Your task to perform on an android device: Clear the shopping cart on bestbuy. Image 0: 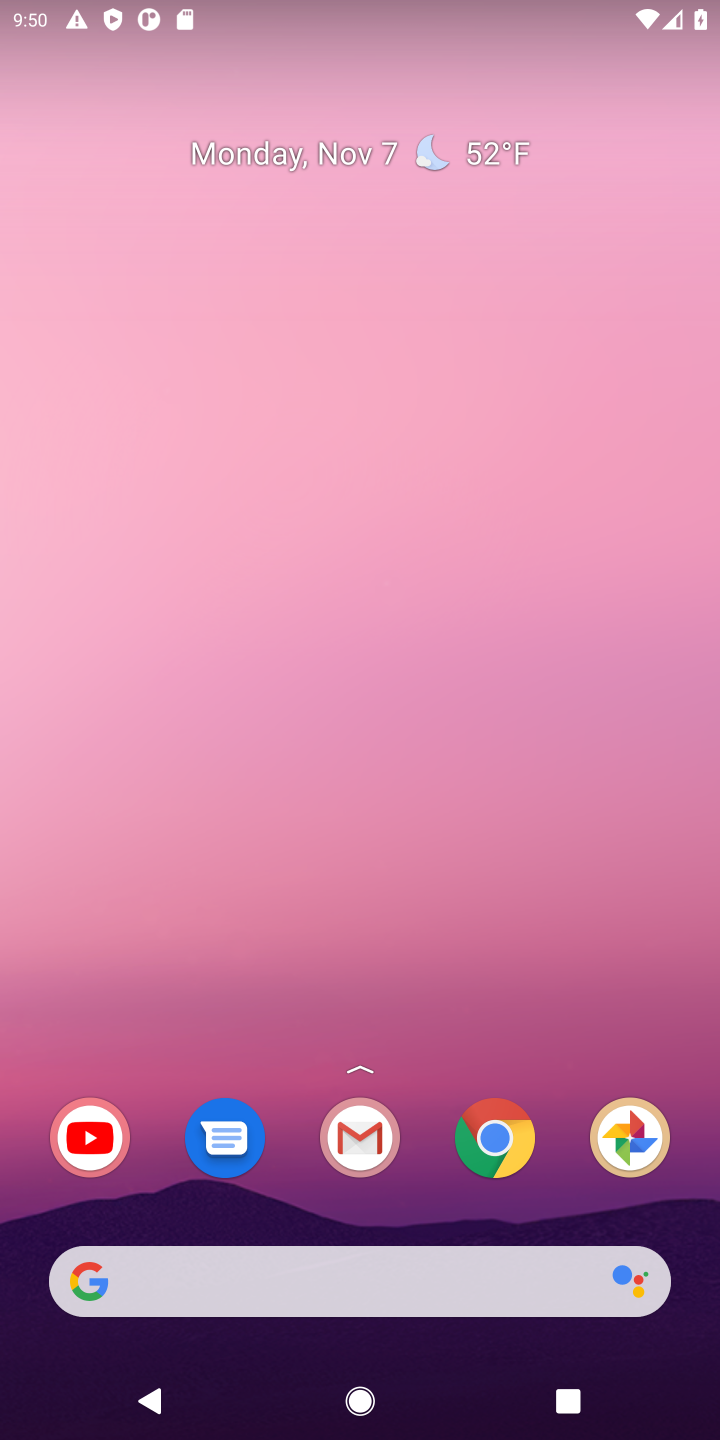
Step 0: click (486, 1139)
Your task to perform on an android device: Clear the shopping cart on bestbuy. Image 1: 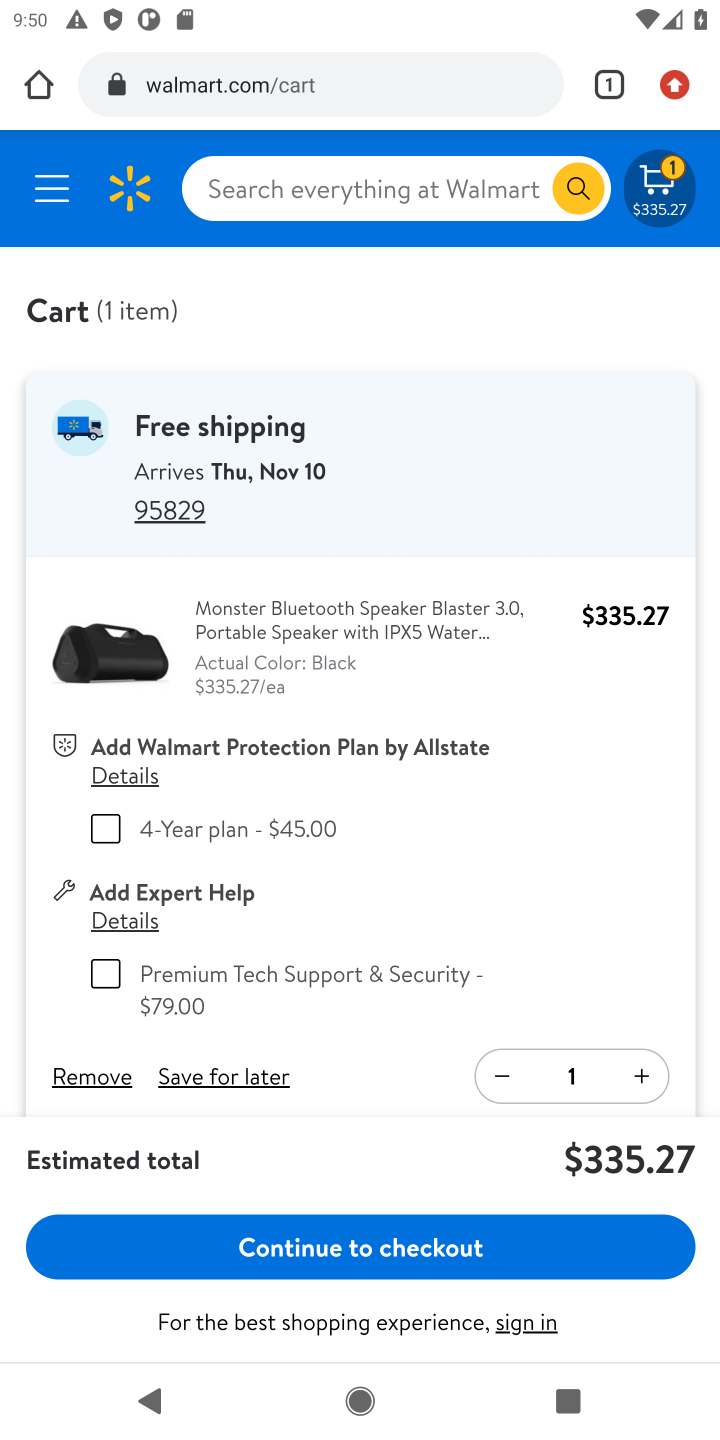
Step 1: click (280, 73)
Your task to perform on an android device: Clear the shopping cart on bestbuy. Image 2: 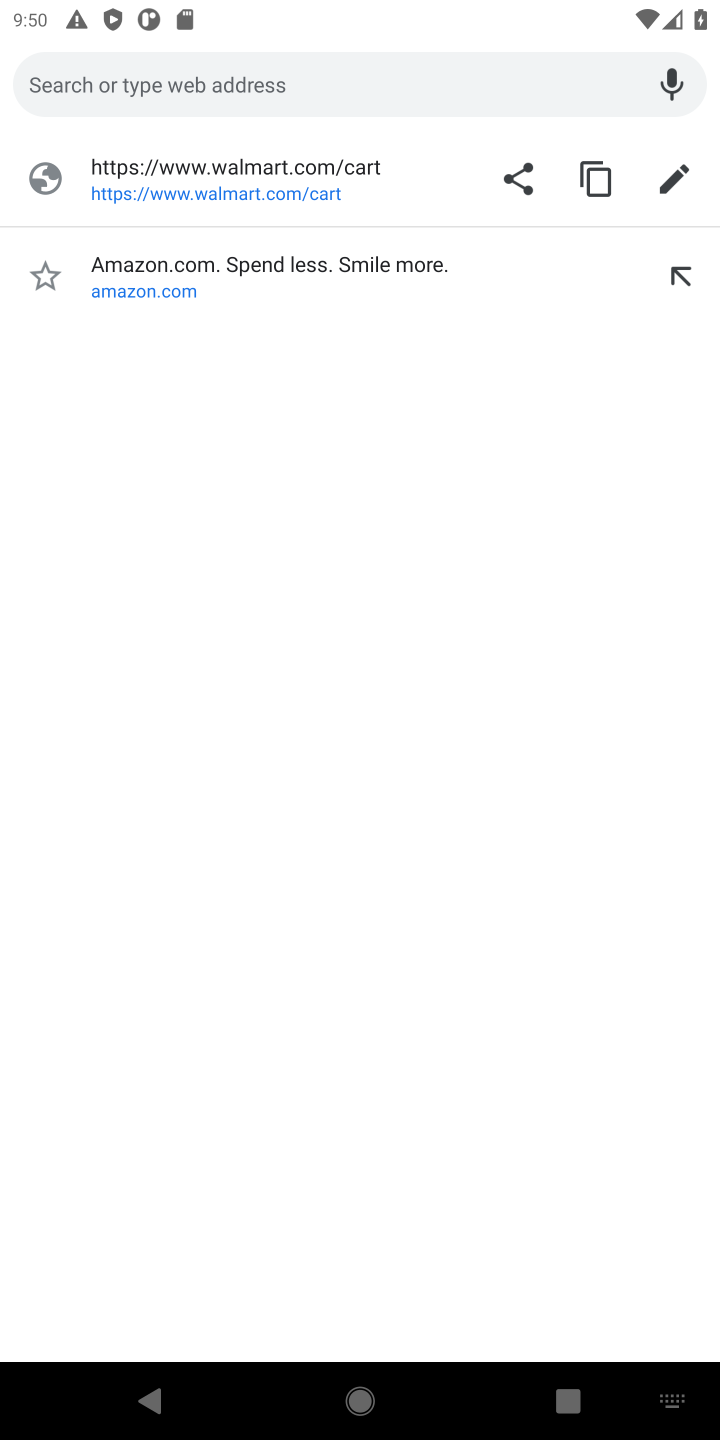
Step 2: type "best buy"
Your task to perform on an android device: Clear the shopping cart on bestbuy. Image 3: 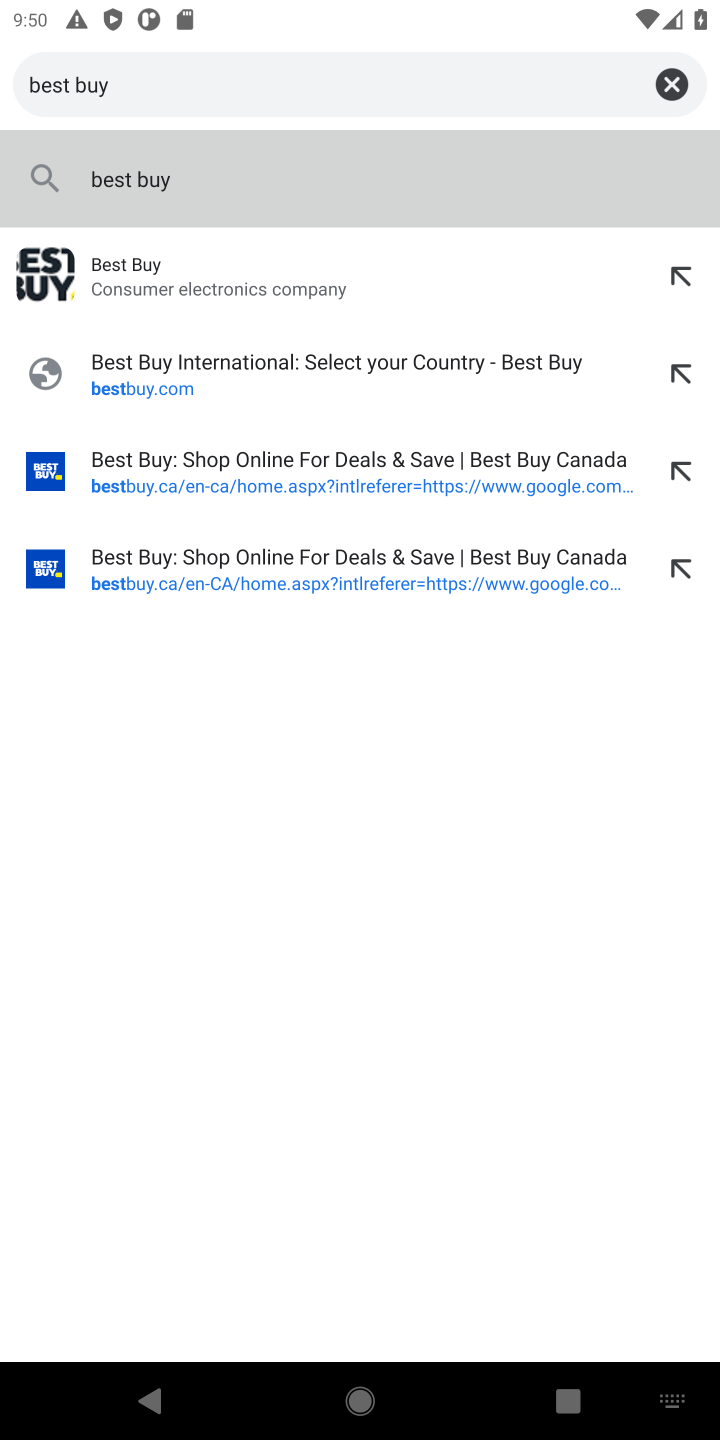
Step 3: type ""
Your task to perform on an android device: Clear the shopping cart on bestbuy. Image 4: 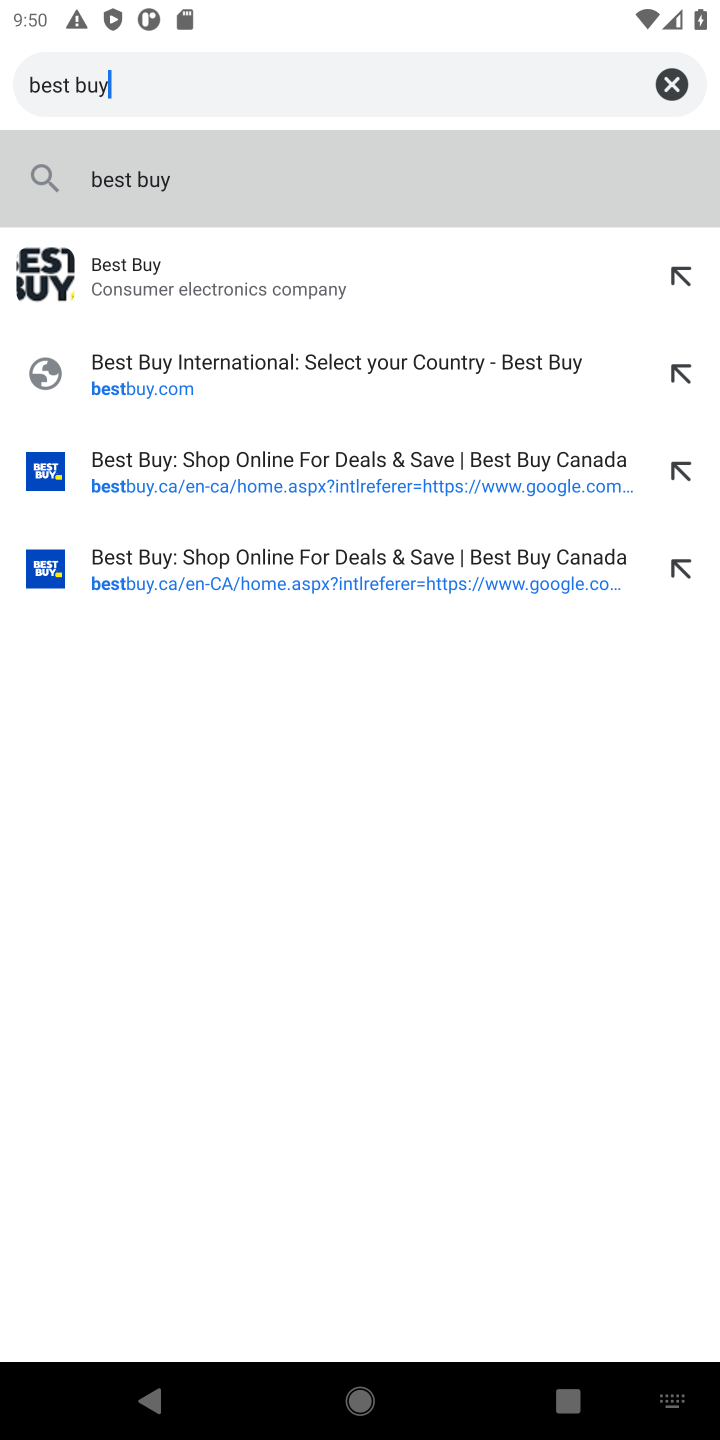
Step 4: click (116, 261)
Your task to perform on an android device: Clear the shopping cart on bestbuy. Image 5: 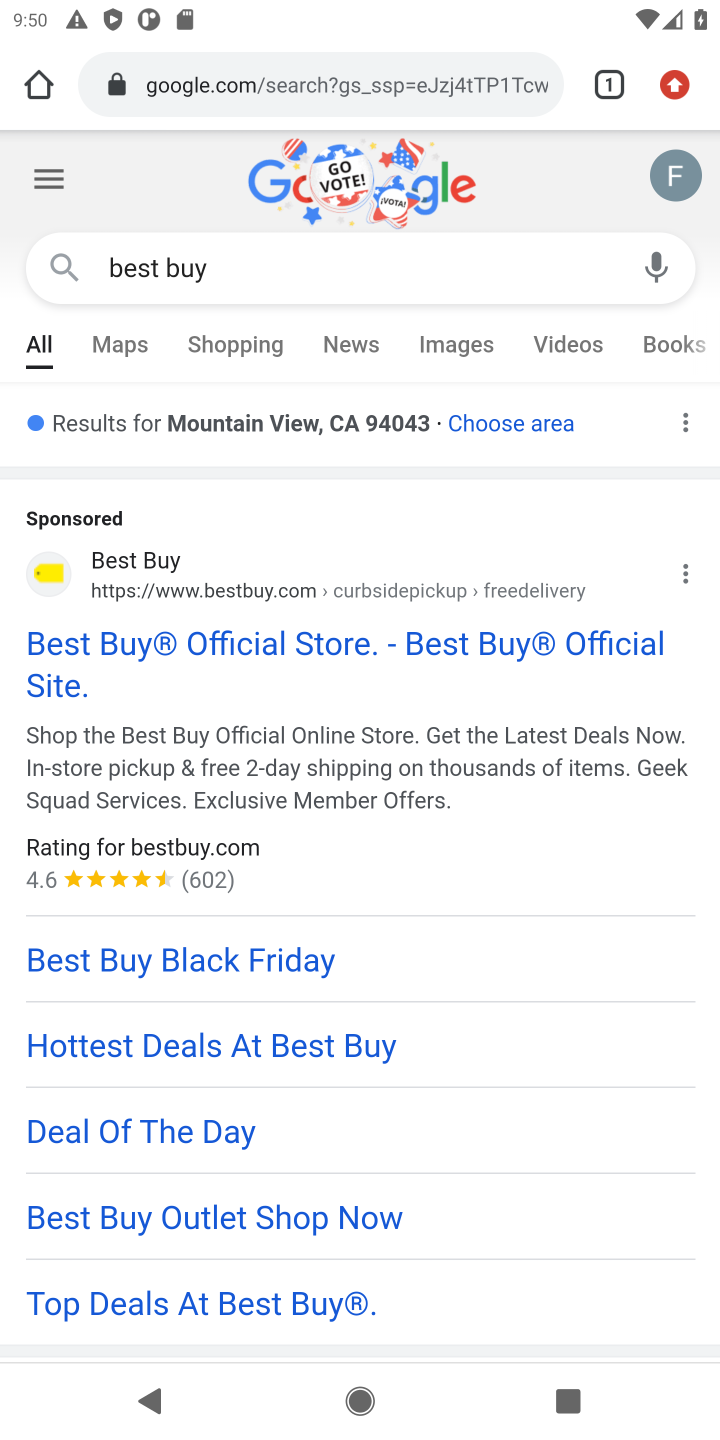
Step 5: click (245, 636)
Your task to perform on an android device: Clear the shopping cart on bestbuy. Image 6: 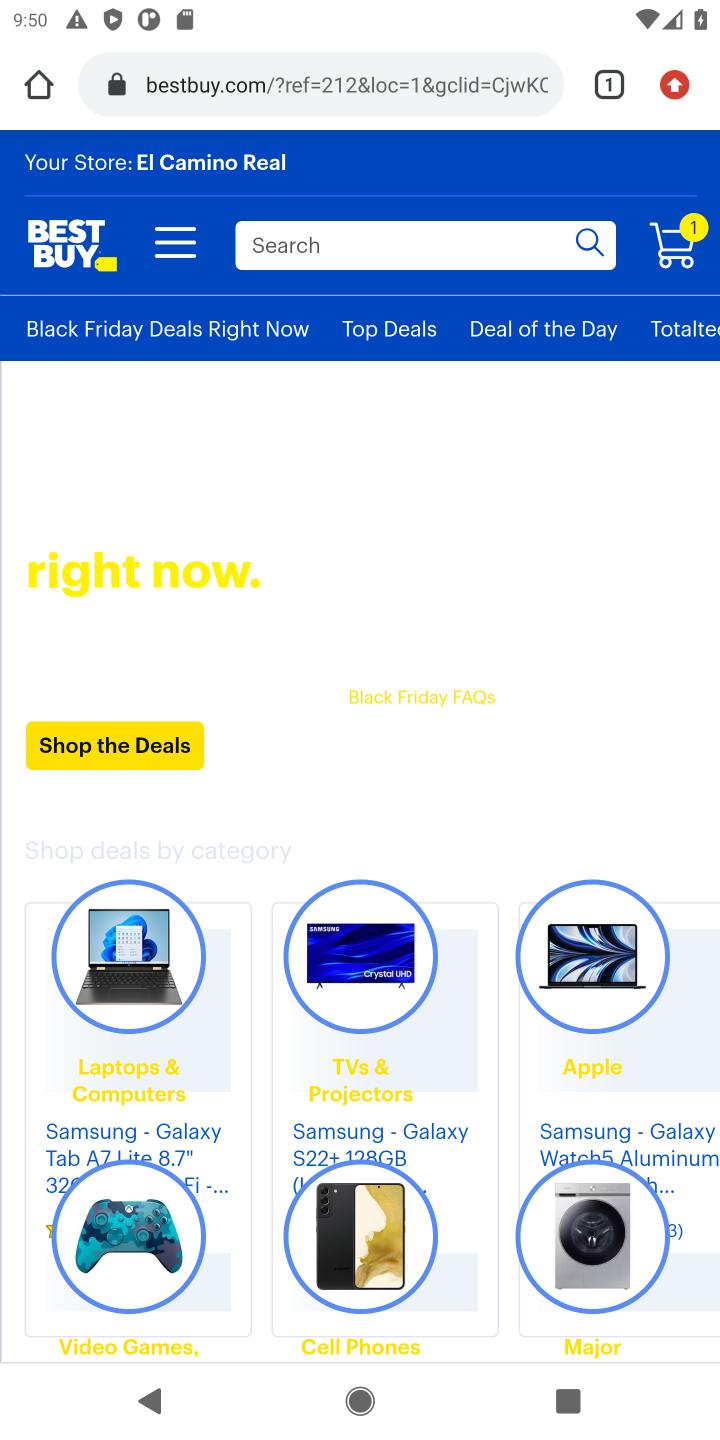
Step 6: click (321, 241)
Your task to perform on an android device: Clear the shopping cart on bestbuy. Image 7: 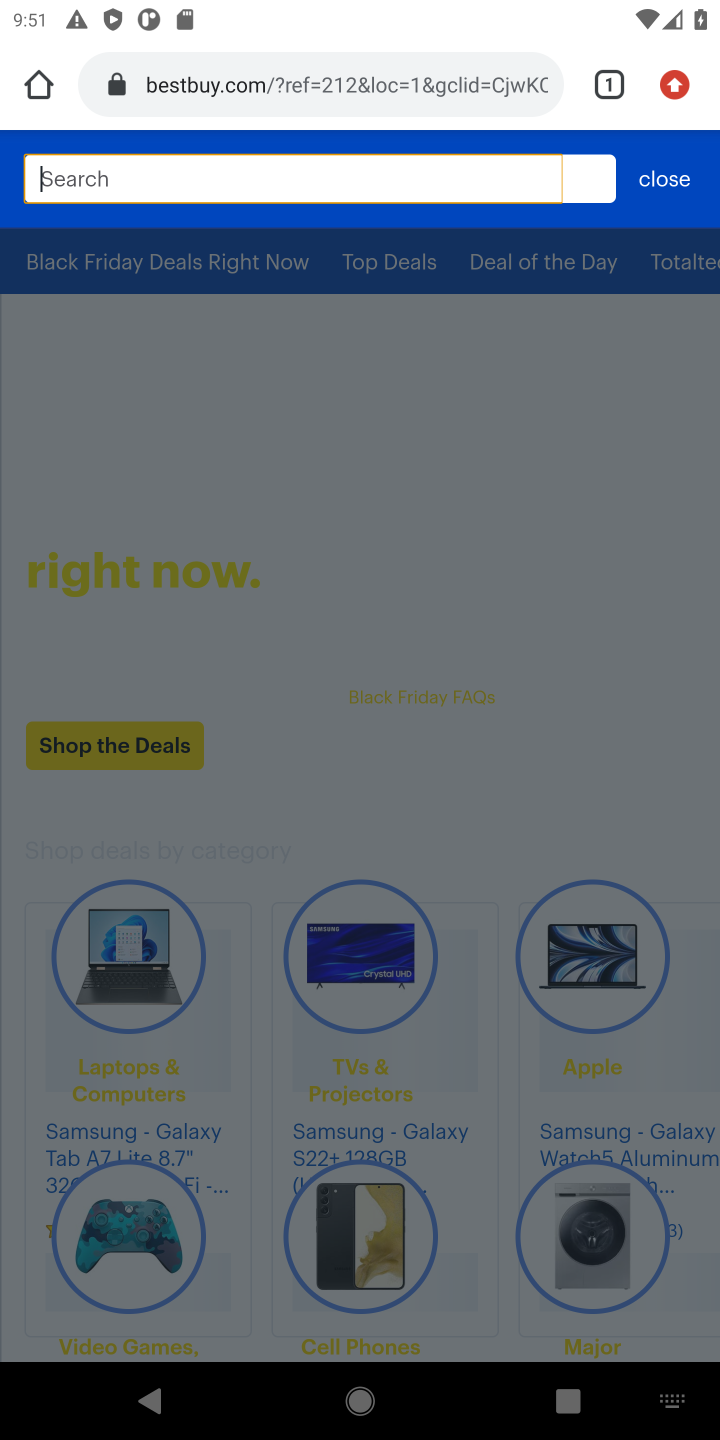
Step 7: click (676, 248)
Your task to perform on an android device: Clear the shopping cart on bestbuy. Image 8: 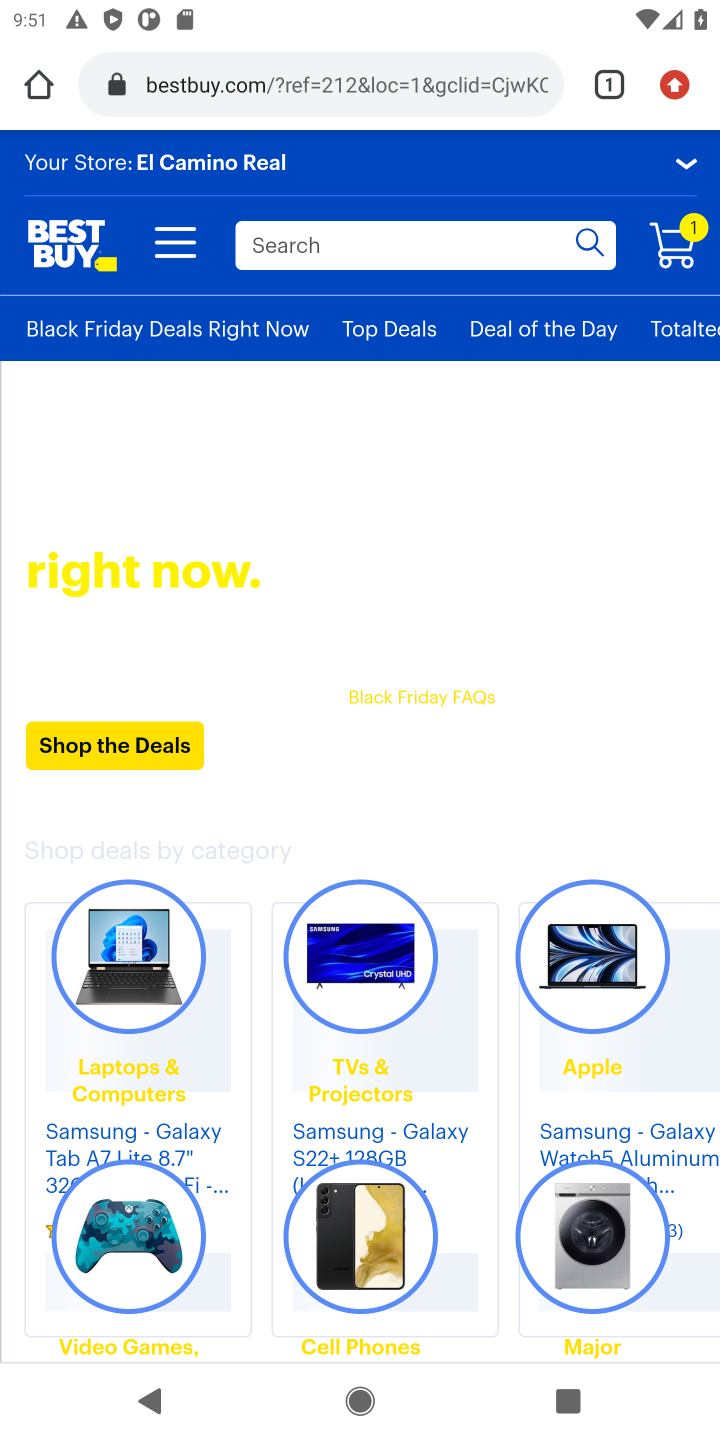
Step 8: click (676, 248)
Your task to perform on an android device: Clear the shopping cart on bestbuy. Image 9: 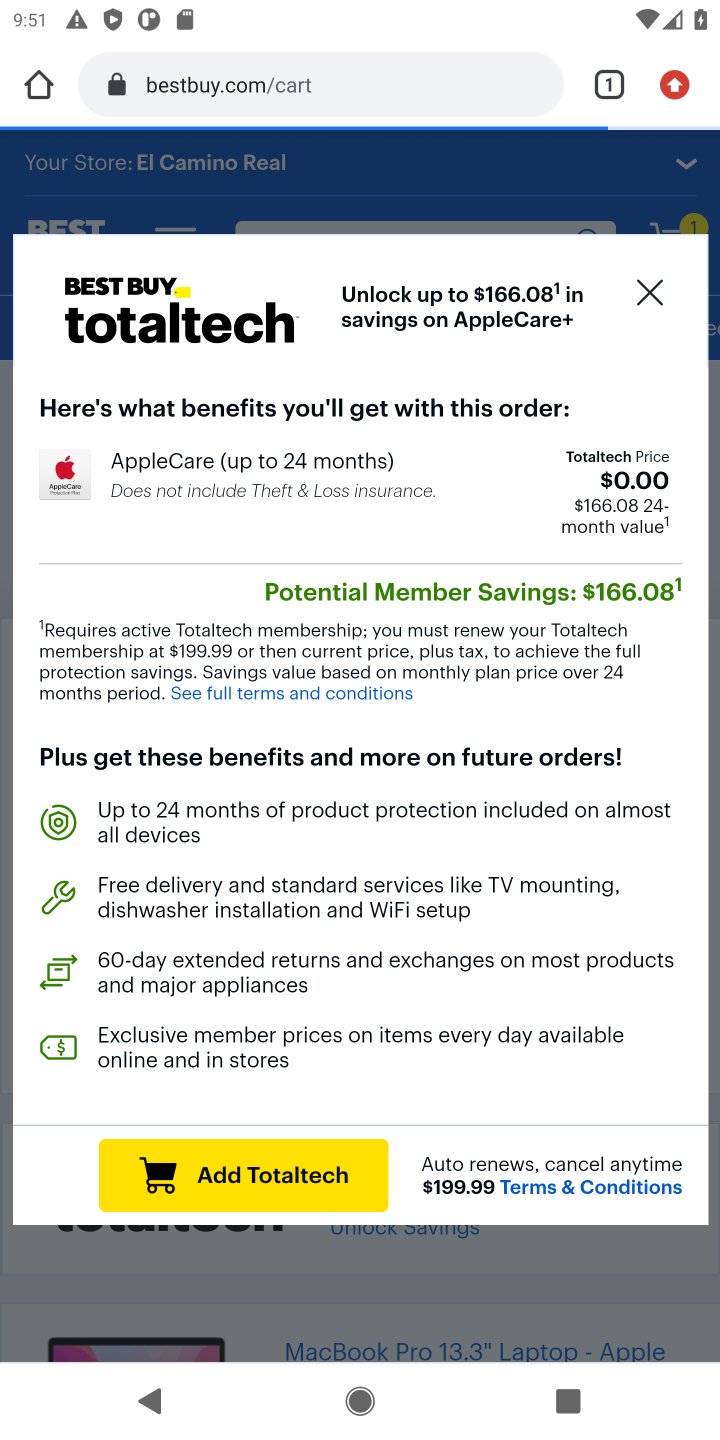
Step 9: click (658, 291)
Your task to perform on an android device: Clear the shopping cart on bestbuy. Image 10: 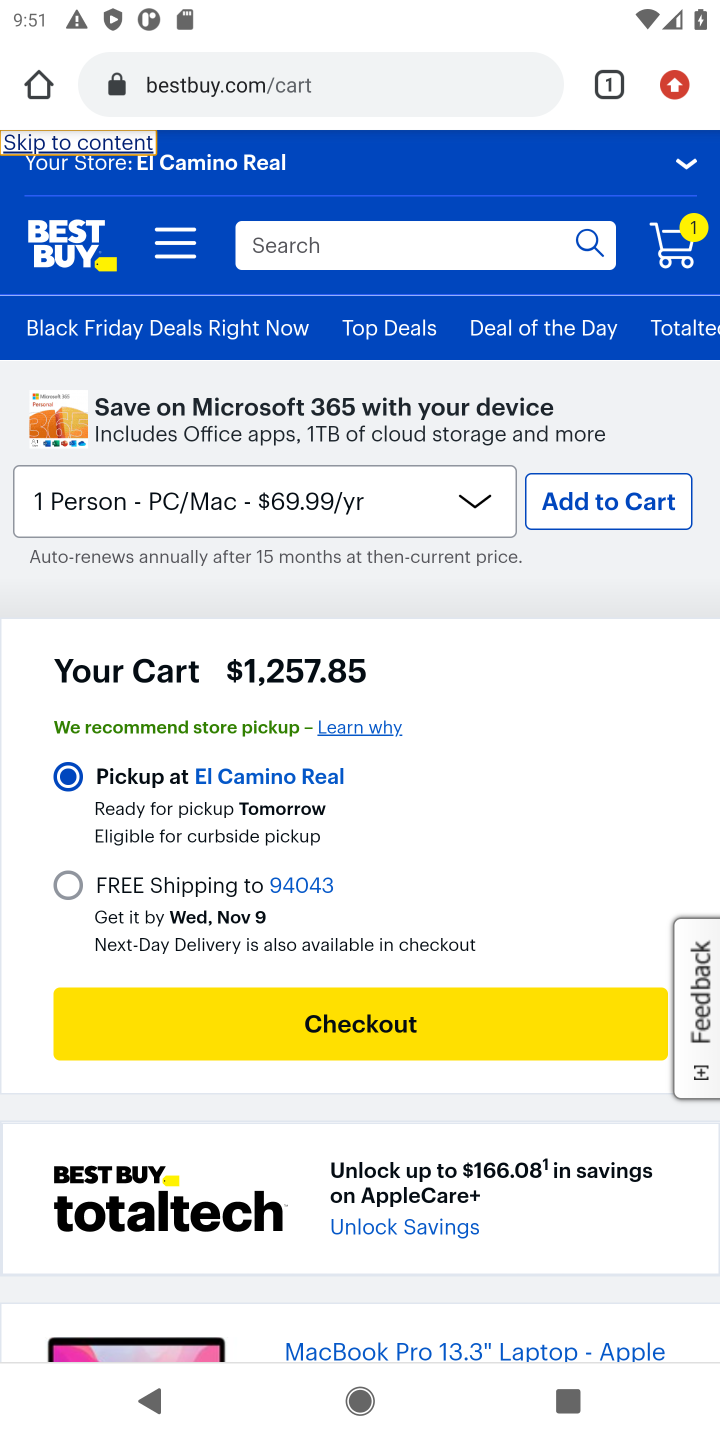
Step 10: drag from (302, 1147) to (614, 516)
Your task to perform on an android device: Clear the shopping cart on bestbuy. Image 11: 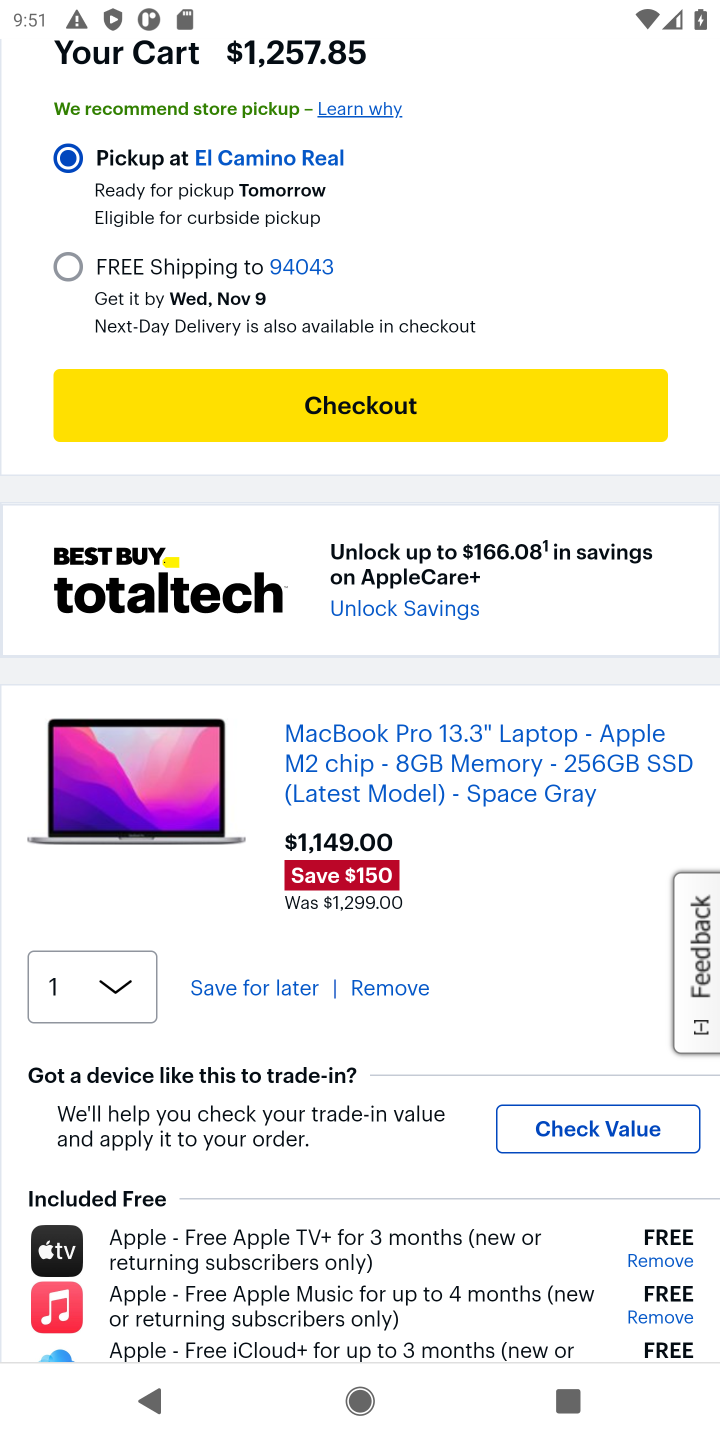
Step 11: click (387, 980)
Your task to perform on an android device: Clear the shopping cart on bestbuy. Image 12: 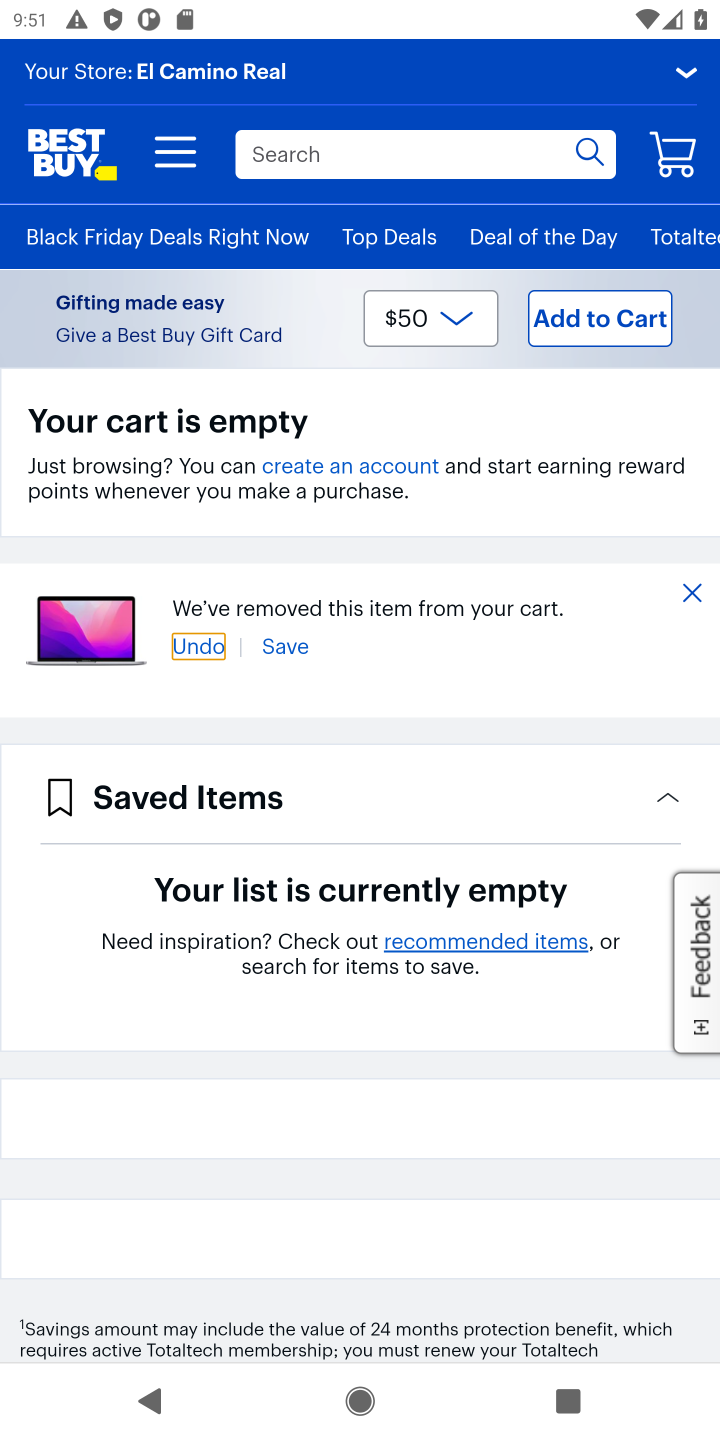
Step 12: task complete